Your task to perform on an android device: move an email to a new category in the gmail app Image 0: 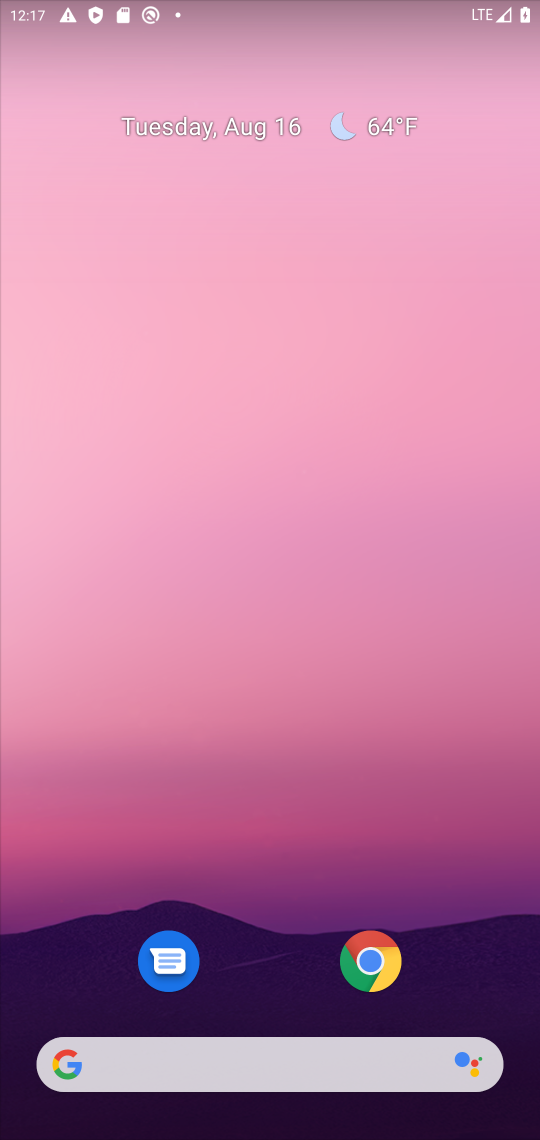
Step 0: drag from (256, 974) to (171, 23)
Your task to perform on an android device: move an email to a new category in the gmail app Image 1: 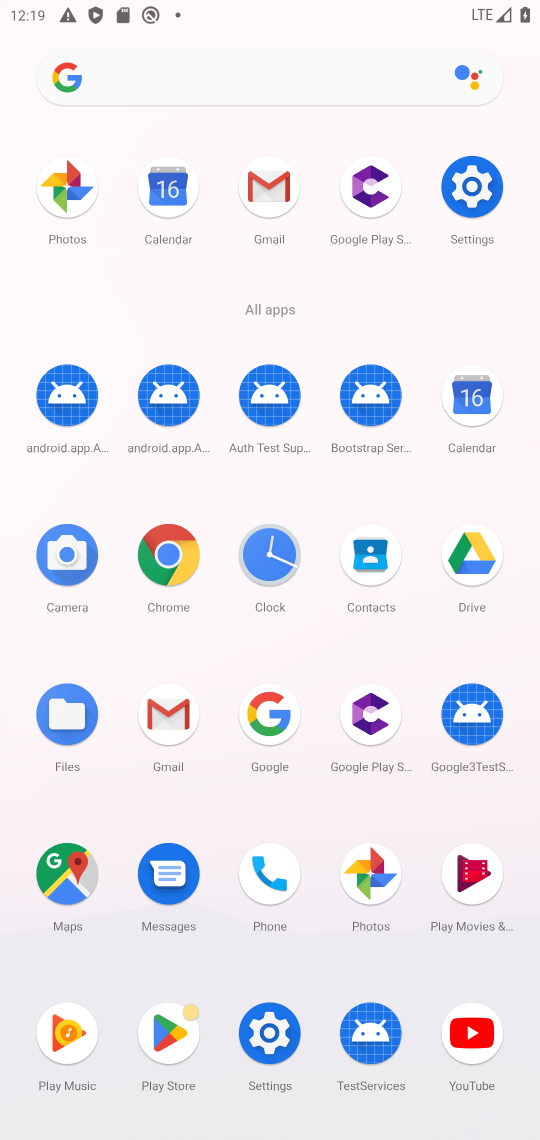
Step 1: click (177, 704)
Your task to perform on an android device: move an email to a new category in the gmail app Image 2: 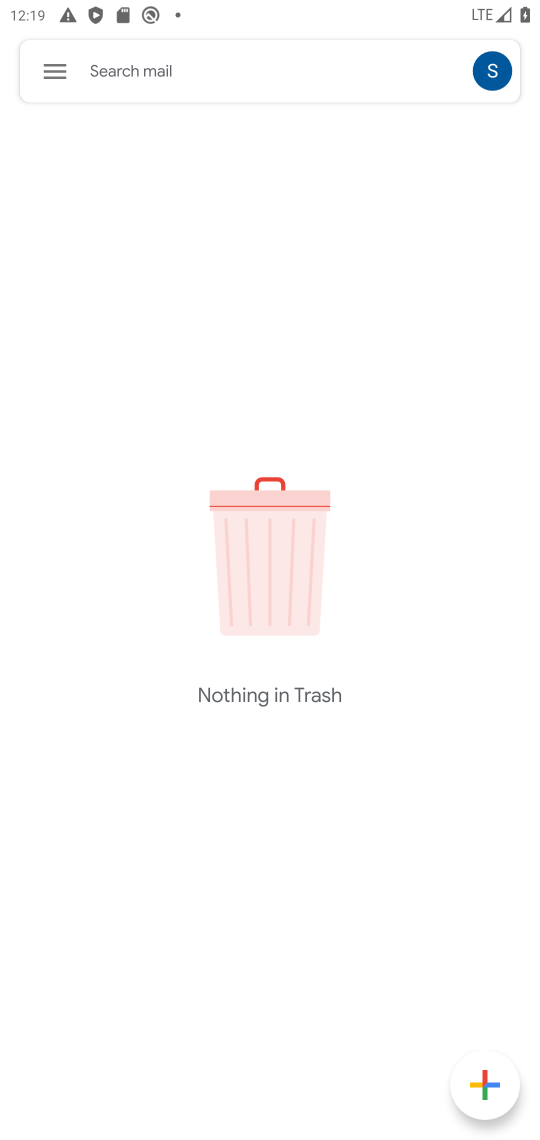
Step 2: click (57, 60)
Your task to perform on an android device: move an email to a new category in the gmail app Image 3: 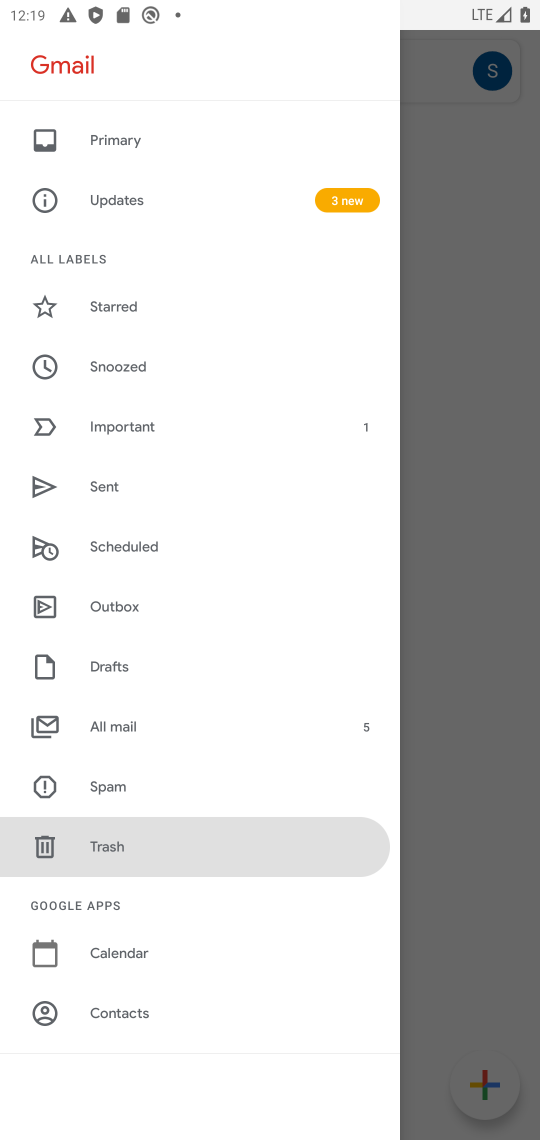
Step 3: click (130, 134)
Your task to perform on an android device: move an email to a new category in the gmail app Image 4: 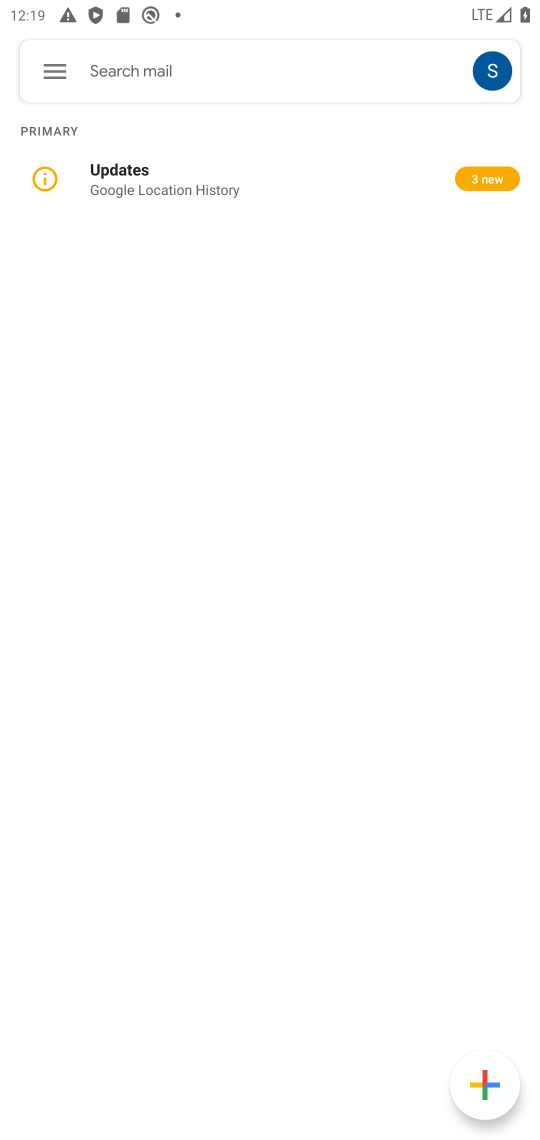
Step 4: task complete